Your task to perform on an android device: Set the phone to "Do not disturb". Image 0: 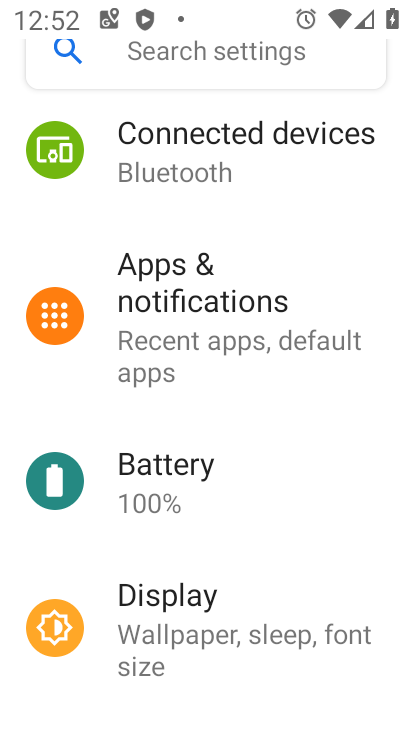
Step 0: press home button
Your task to perform on an android device: Set the phone to "Do not disturb". Image 1: 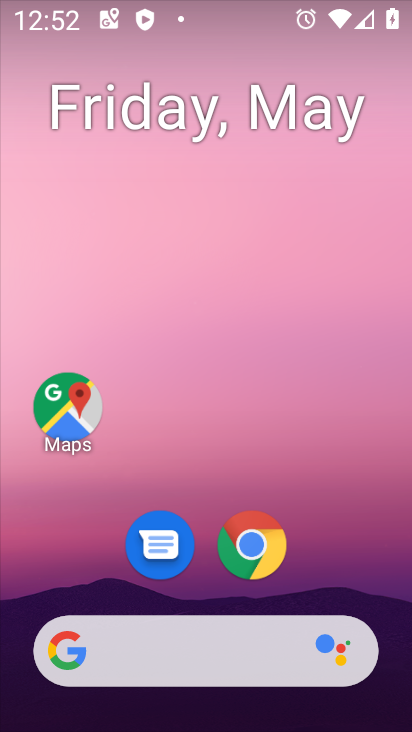
Step 1: drag from (326, 505) to (304, 211)
Your task to perform on an android device: Set the phone to "Do not disturb". Image 2: 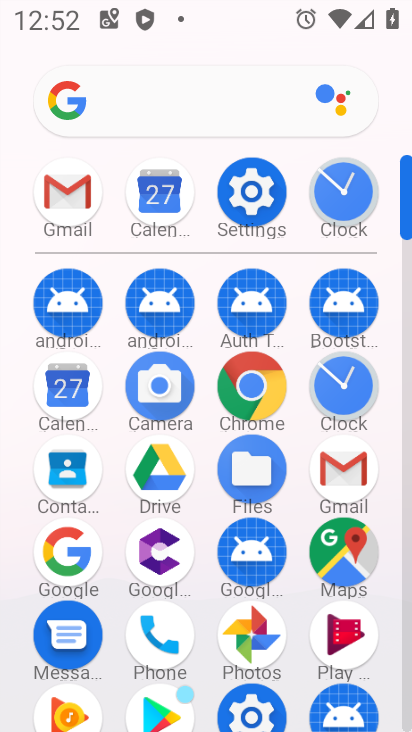
Step 2: drag from (195, 94) to (165, 471)
Your task to perform on an android device: Set the phone to "Do not disturb". Image 3: 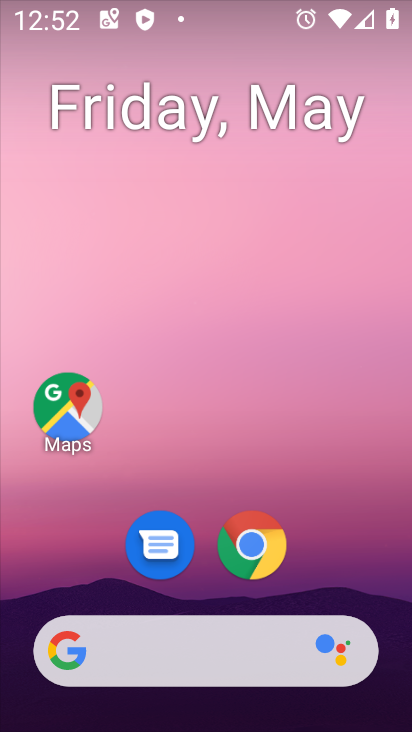
Step 3: drag from (308, 565) to (262, 300)
Your task to perform on an android device: Set the phone to "Do not disturb". Image 4: 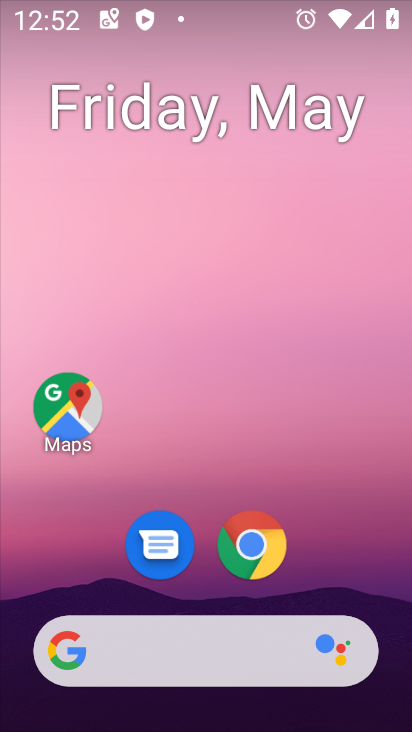
Step 4: drag from (266, 0) to (189, 403)
Your task to perform on an android device: Set the phone to "Do not disturb". Image 5: 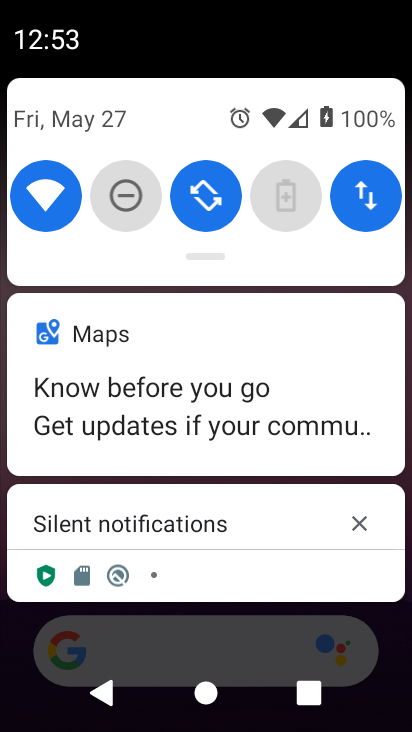
Step 5: click (123, 177)
Your task to perform on an android device: Set the phone to "Do not disturb". Image 6: 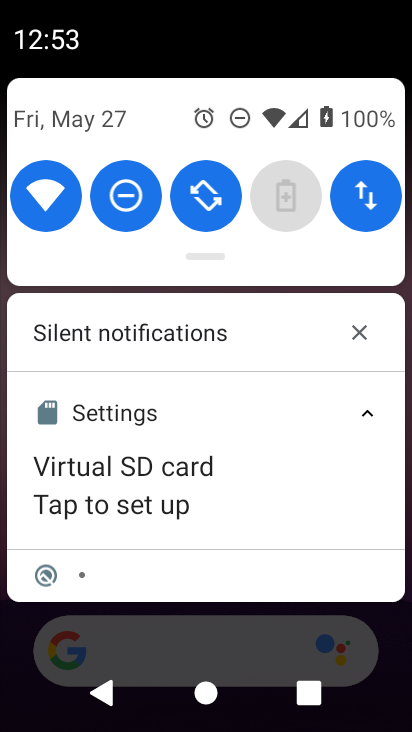
Step 6: task complete